Your task to perform on an android device: Go to Maps Image 0: 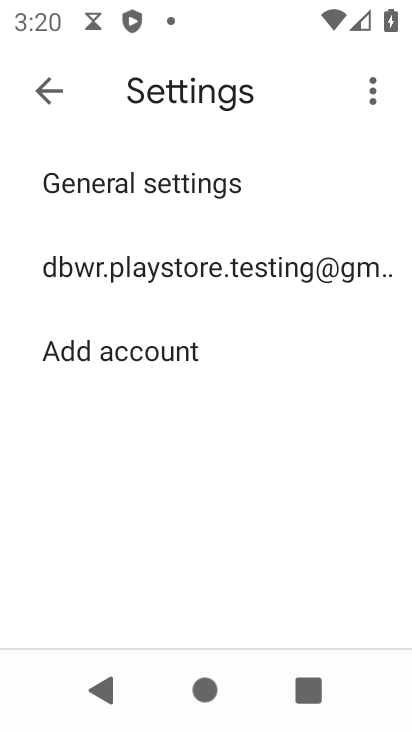
Step 0: press home button
Your task to perform on an android device: Go to Maps Image 1: 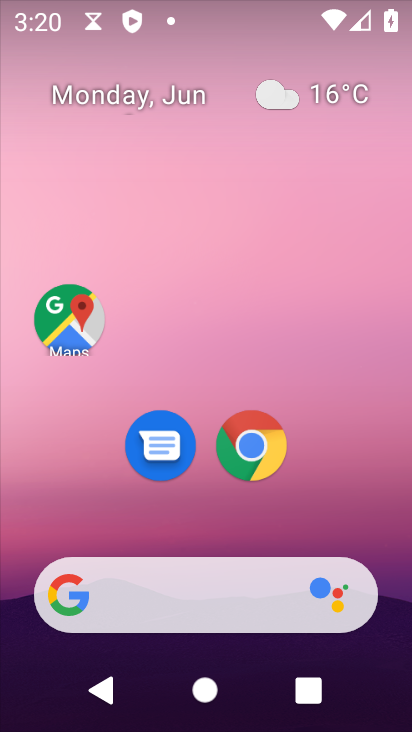
Step 1: click (82, 335)
Your task to perform on an android device: Go to Maps Image 2: 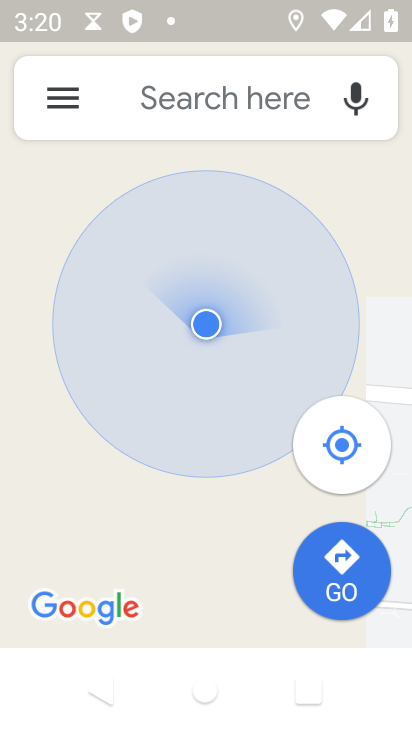
Step 2: task complete